Your task to perform on an android device: delete location history Image 0: 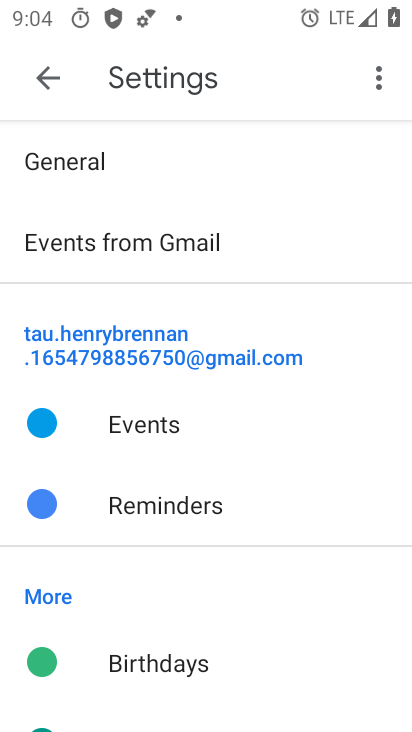
Step 0: press home button
Your task to perform on an android device: delete location history Image 1: 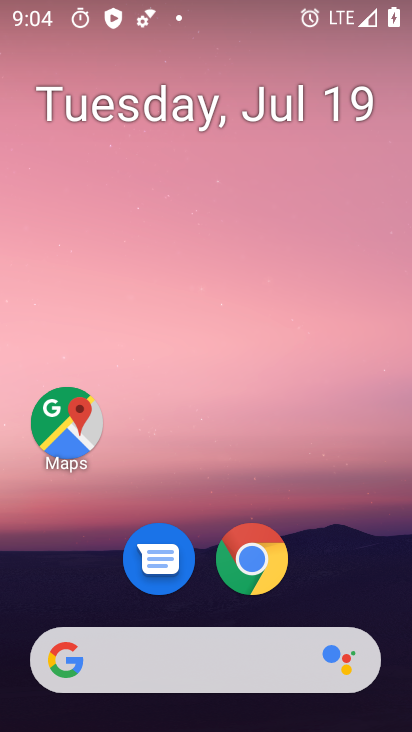
Step 1: drag from (384, 610) to (317, 97)
Your task to perform on an android device: delete location history Image 2: 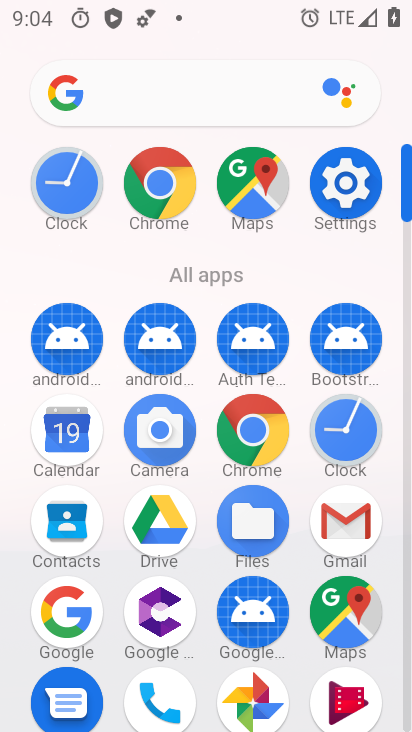
Step 2: click (267, 174)
Your task to perform on an android device: delete location history Image 3: 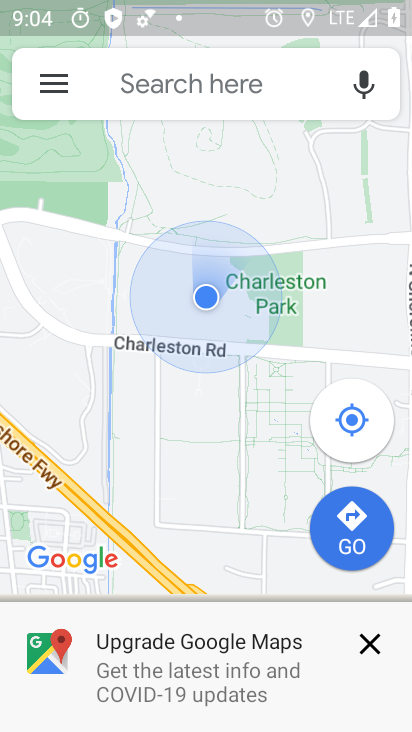
Step 3: click (53, 81)
Your task to perform on an android device: delete location history Image 4: 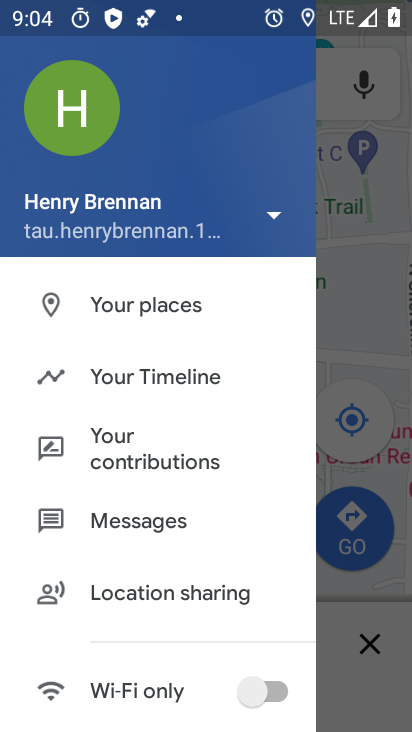
Step 4: click (159, 370)
Your task to perform on an android device: delete location history Image 5: 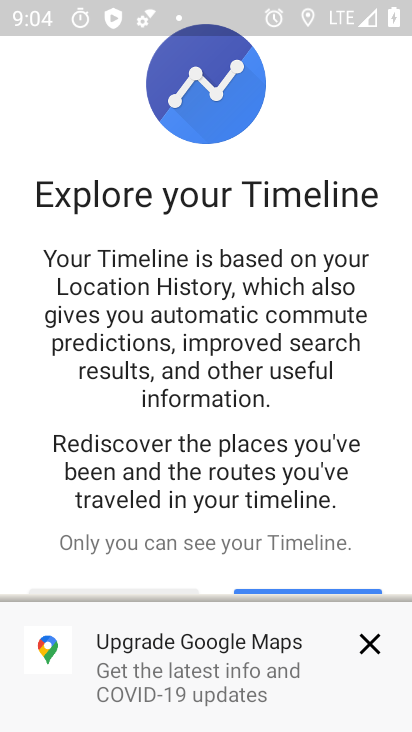
Step 5: click (372, 651)
Your task to perform on an android device: delete location history Image 6: 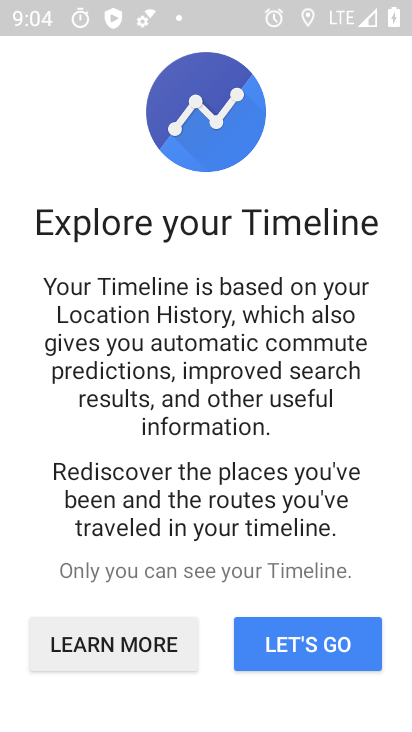
Step 6: click (351, 653)
Your task to perform on an android device: delete location history Image 7: 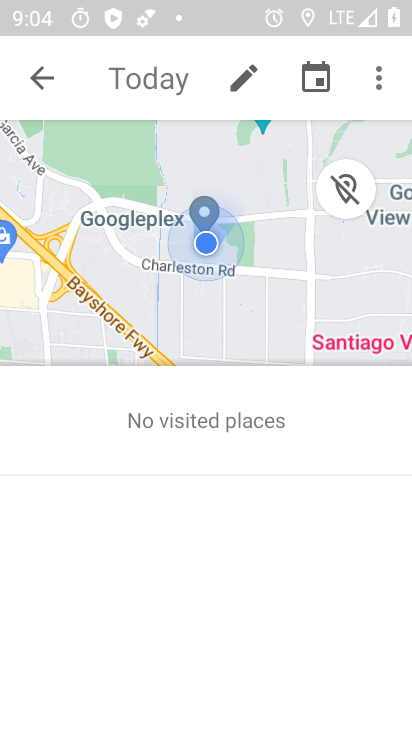
Step 7: click (383, 82)
Your task to perform on an android device: delete location history Image 8: 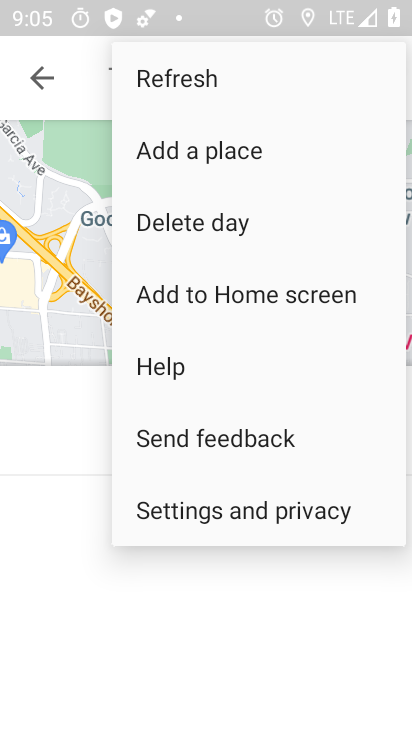
Step 8: click (300, 514)
Your task to perform on an android device: delete location history Image 9: 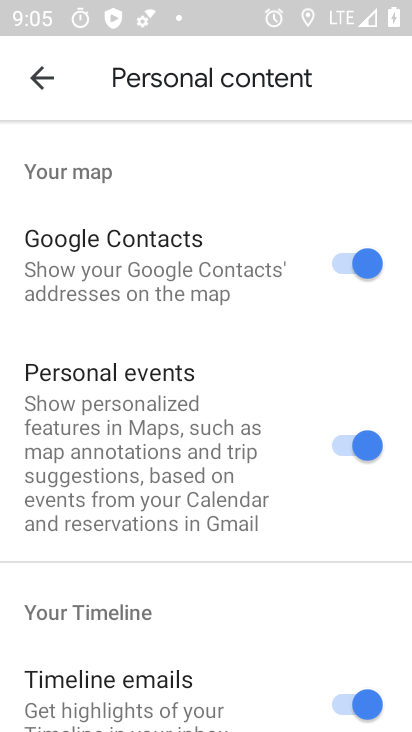
Step 9: drag from (300, 642) to (293, 176)
Your task to perform on an android device: delete location history Image 10: 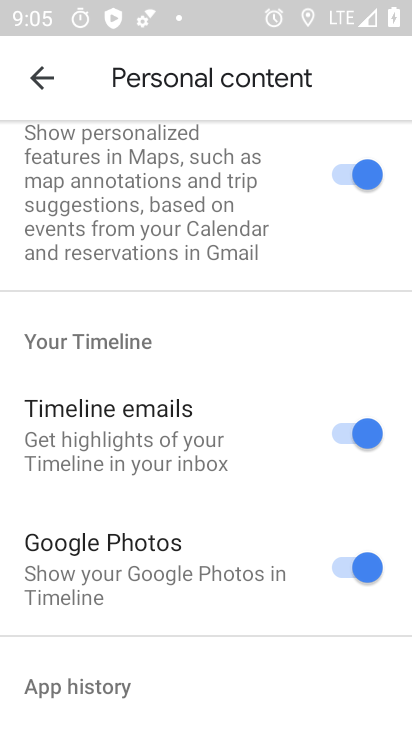
Step 10: drag from (278, 658) to (236, 234)
Your task to perform on an android device: delete location history Image 11: 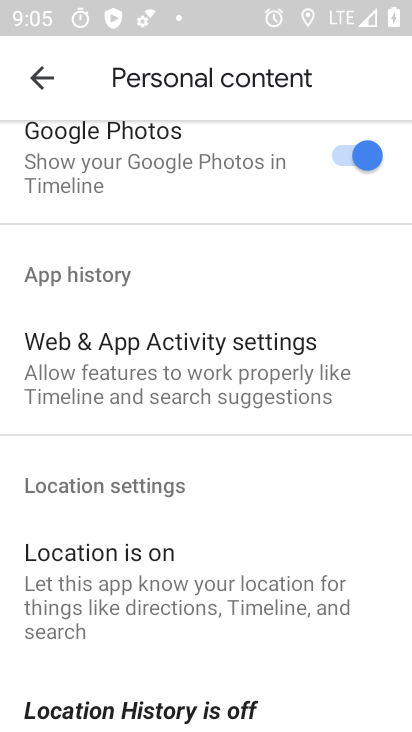
Step 11: drag from (275, 547) to (247, 179)
Your task to perform on an android device: delete location history Image 12: 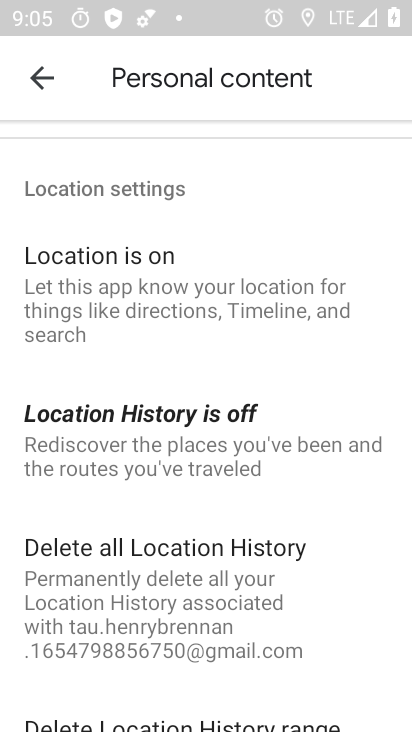
Step 12: click (264, 566)
Your task to perform on an android device: delete location history Image 13: 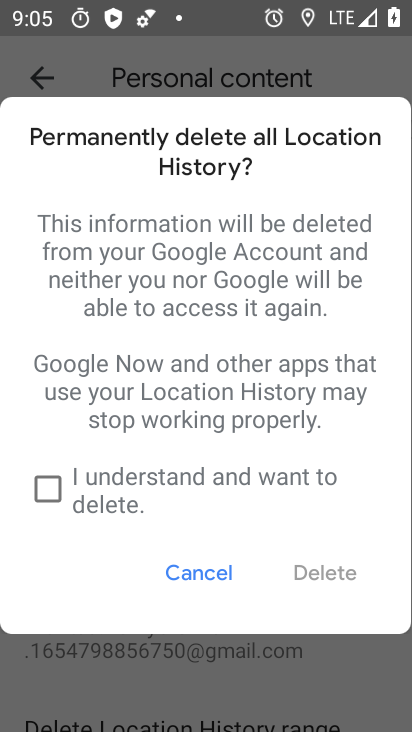
Step 13: click (223, 476)
Your task to perform on an android device: delete location history Image 14: 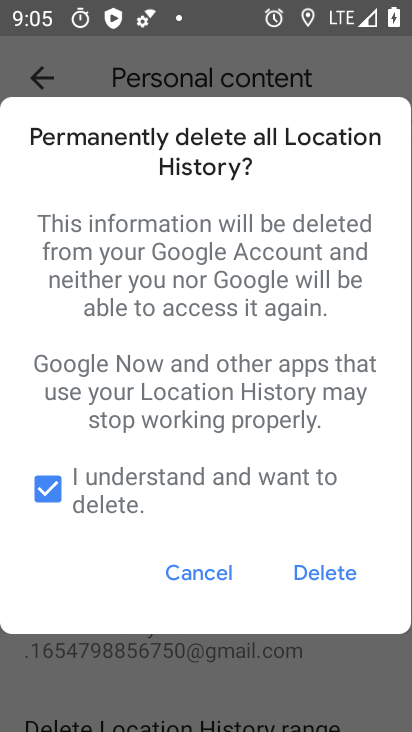
Step 14: click (317, 569)
Your task to perform on an android device: delete location history Image 15: 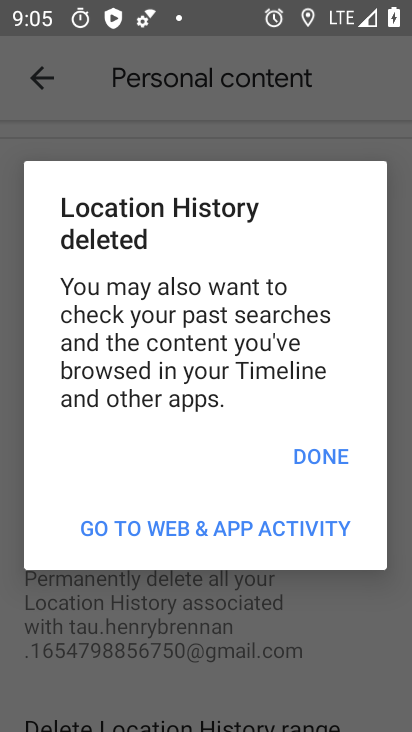
Step 15: click (318, 456)
Your task to perform on an android device: delete location history Image 16: 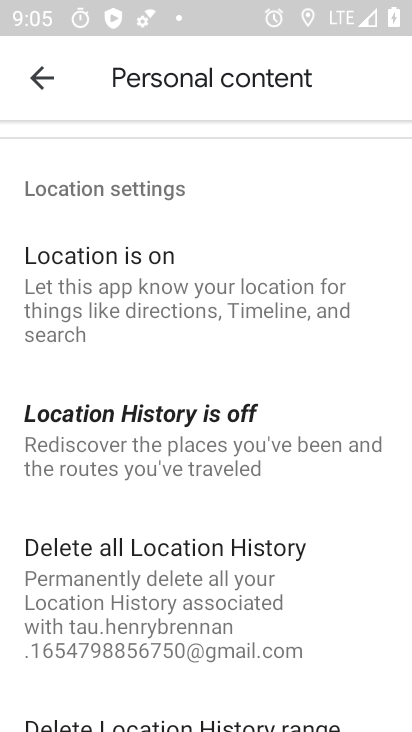
Step 16: task complete